Your task to perform on an android device: Open Chrome and go to settings Image 0: 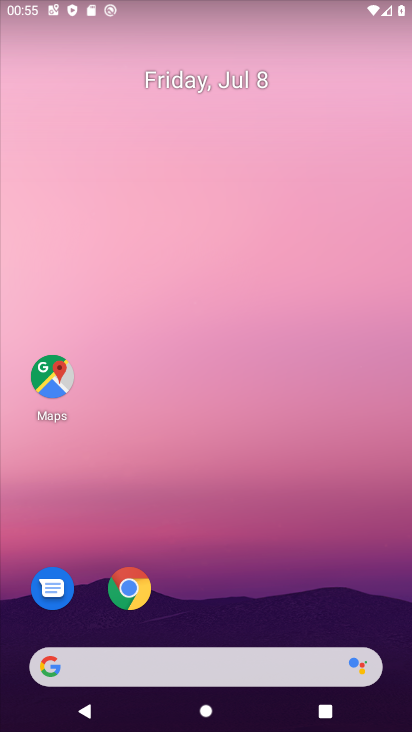
Step 0: click (252, 209)
Your task to perform on an android device: Open Chrome and go to settings Image 1: 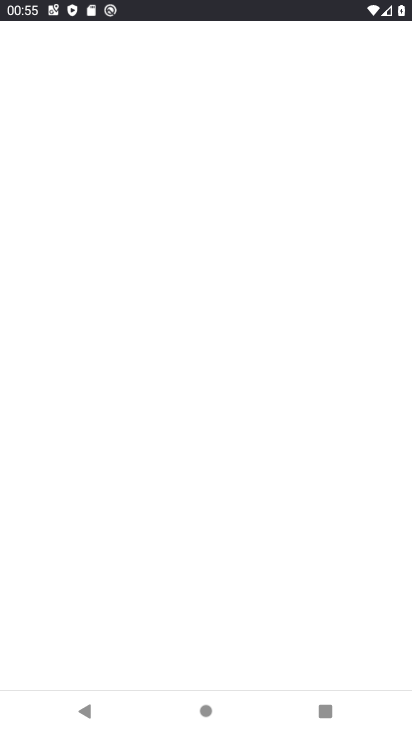
Step 1: drag from (182, 609) to (226, 242)
Your task to perform on an android device: Open Chrome and go to settings Image 2: 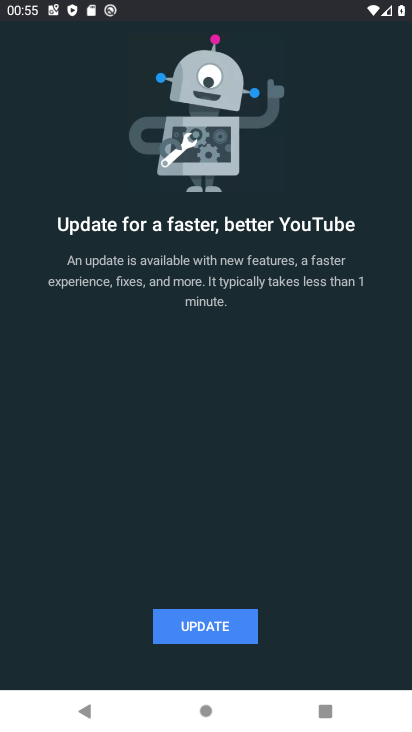
Step 2: press home button
Your task to perform on an android device: Open Chrome and go to settings Image 3: 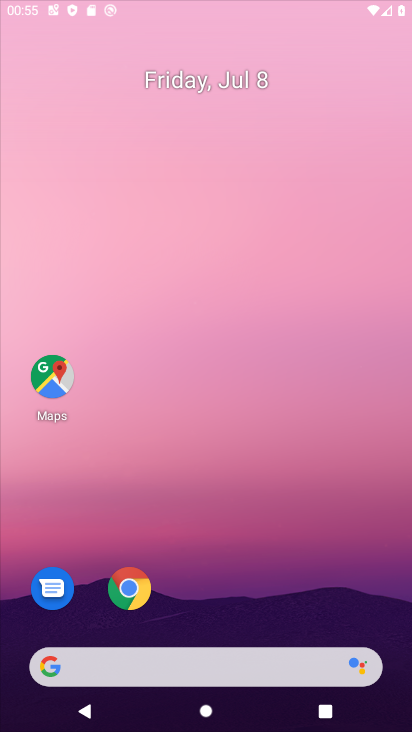
Step 3: drag from (166, 542) to (201, 121)
Your task to perform on an android device: Open Chrome and go to settings Image 4: 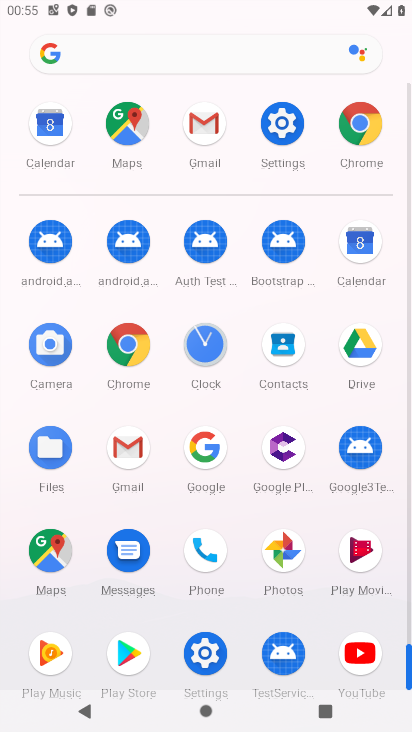
Step 4: click (285, 113)
Your task to perform on an android device: Open Chrome and go to settings Image 5: 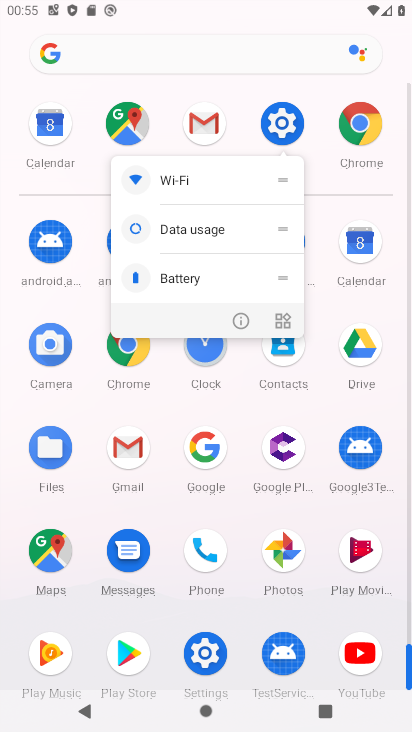
Step 5: click (241, 320)
Your task to perform on an android device: Open Chrome and go to settings Image 6: 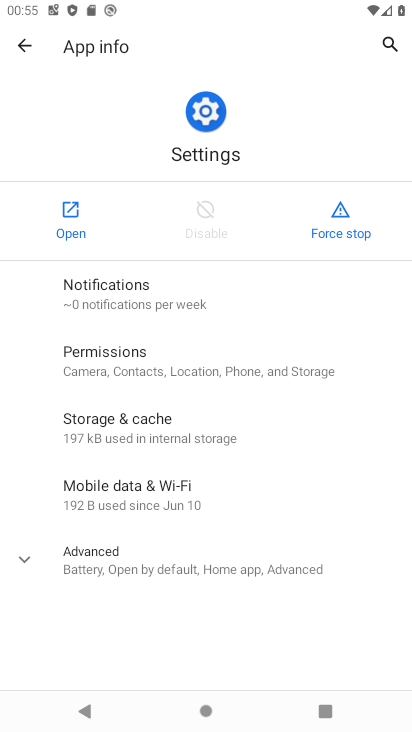
Step 6: press home button
Your task to perform on an android device: Open Chrome and go to settings Image 7: 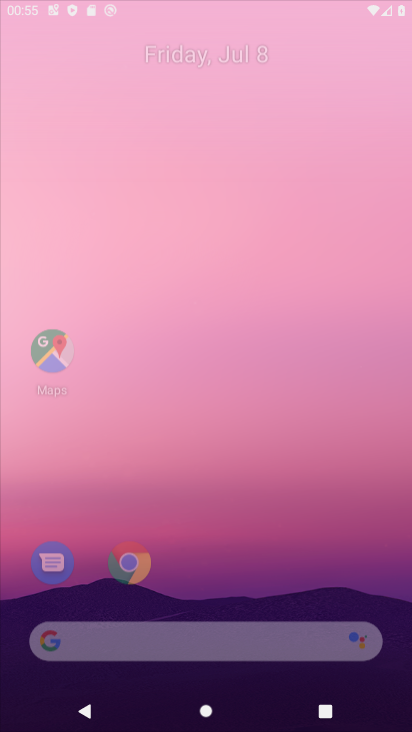
Step 7: drag from (205, 527) to (287, 132)
Your task to perform on an android device: Open Chrome and go to settings Image 8: 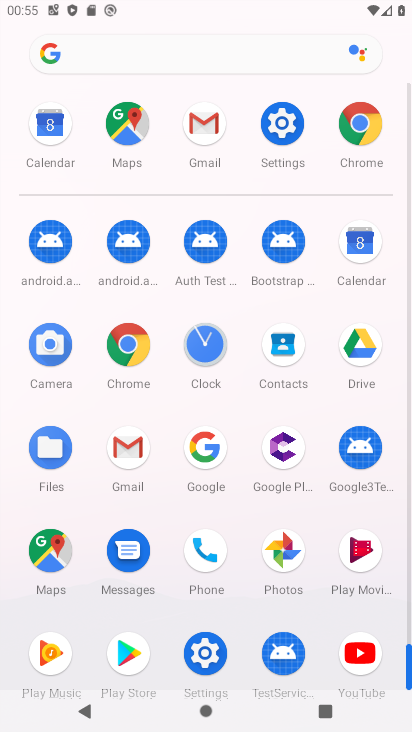
Step 8: click (362, 116)
Your task to perform on an android device: Open Chrome and go to settings Image 9: 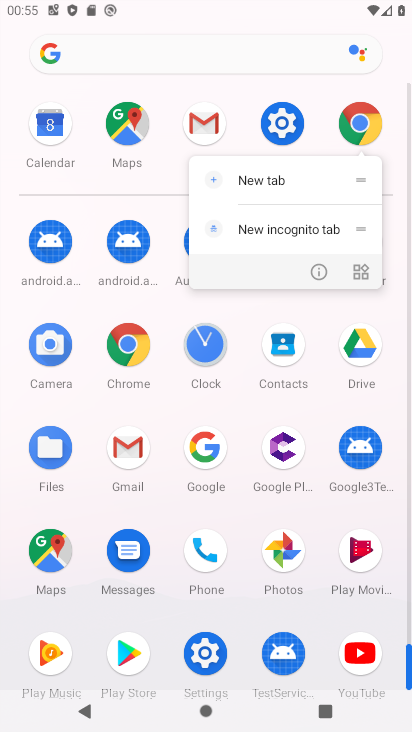
Step 9: click (314, 275)
Your task to perform on an android device: Open Chrome and go to settings Image 10: 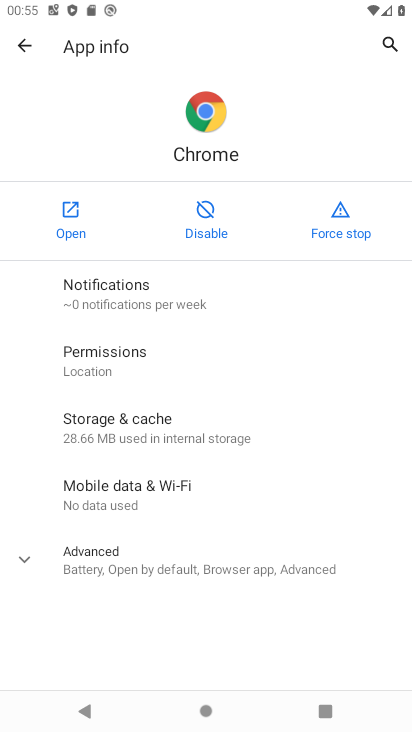
Step 10: click (65, 221)
Your task to perform on an android device: Open Chrome and go to settings Image 11: 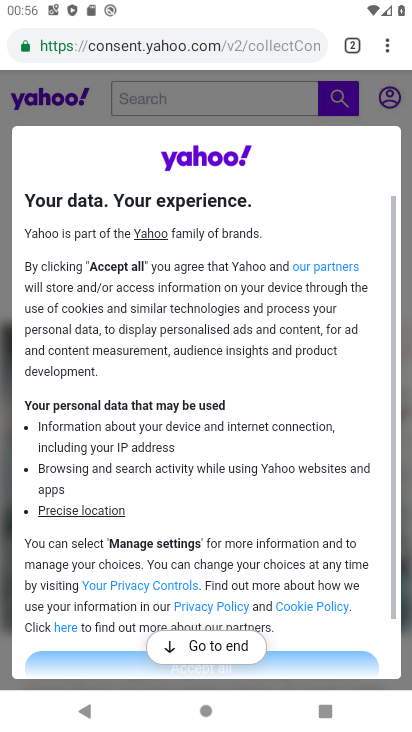
Step 11: click (391, 53)
Your task to perform on an android device: Open Chrome and go to settings Image 12: 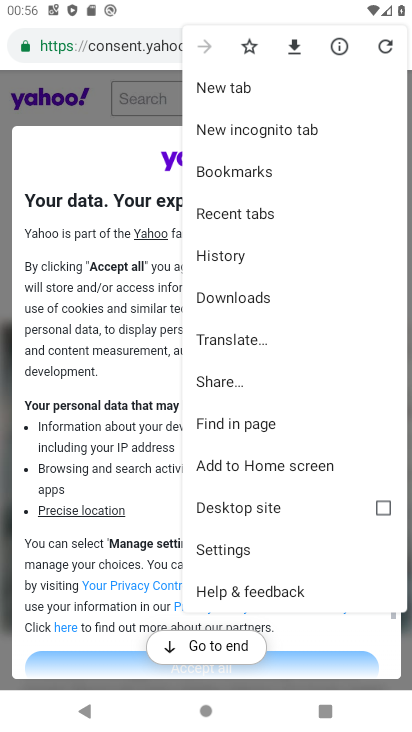
Step 12: click (237, 555)
Your task to perform on an android device: Open Chrome and go to settings Image 13: 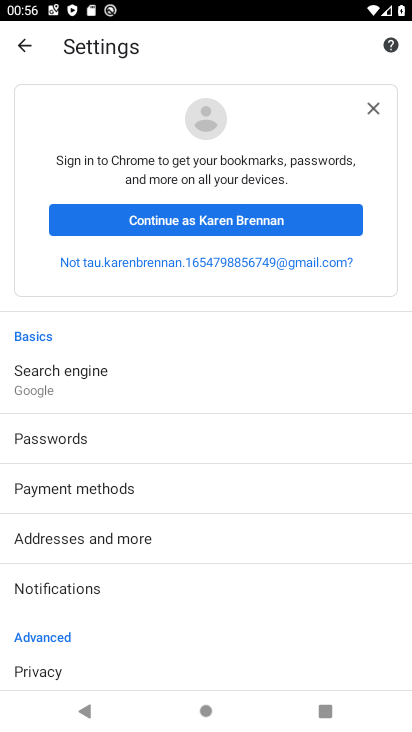
Step 13: task complete